Your task to perform on an android device: show emergency info Image 0: 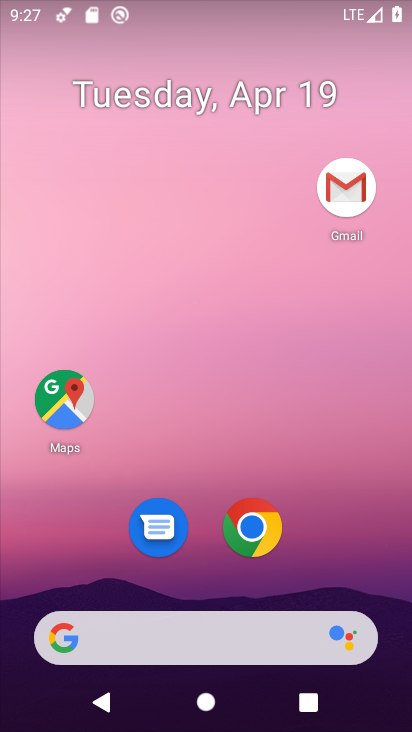
Step 0: drag from (364, 531) to (365, 114)
Your task to perform on an android device: show emergency info Image 1: 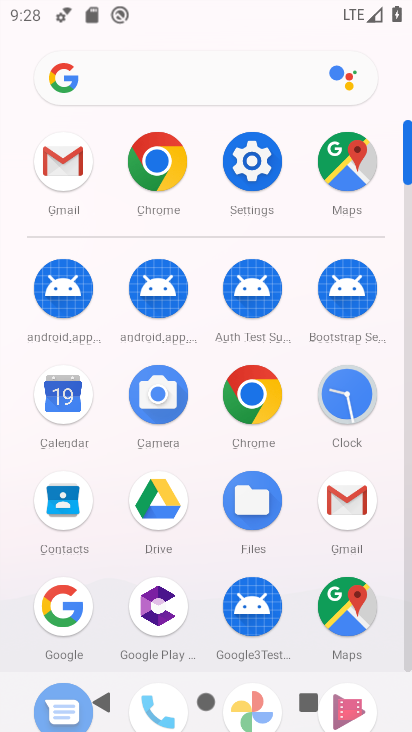
Step 1: click (248, 168)
Your task to perform on an android device: show emergency info Image 2: 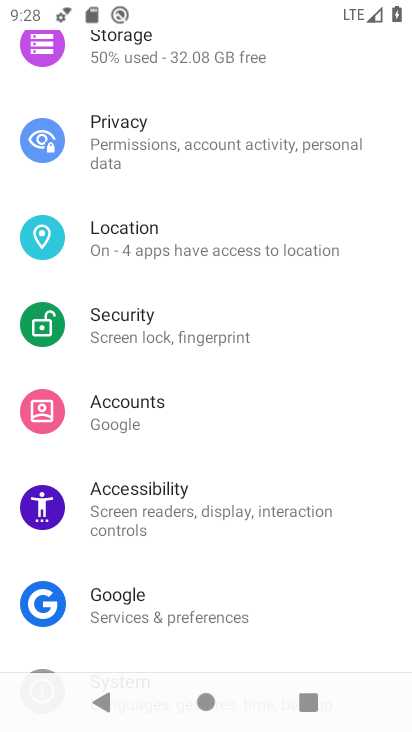
Step 2: drag from (326, 631) to (369, 208)
Your task to perform on an android device: show emergency info Image 3: 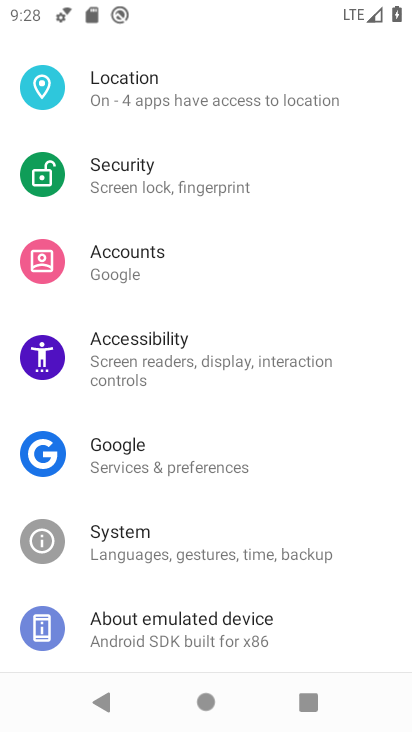
Step 3: click (248, 635)
Your task to perform on an android device: show emergency info Image 4: 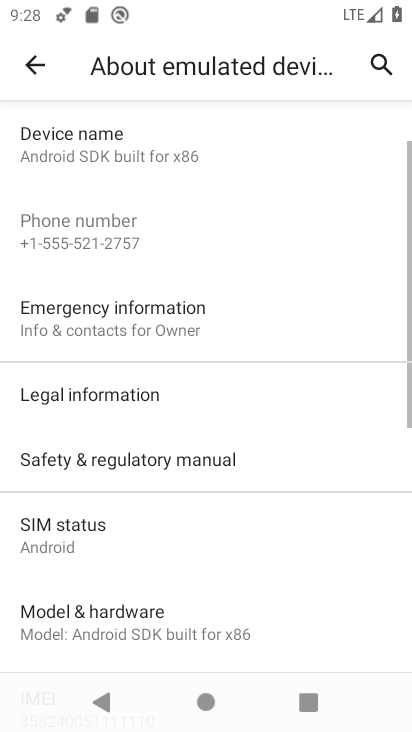
Step 4: click (210, 311)
Your task to perform on an android device: show emergency info Image 5: 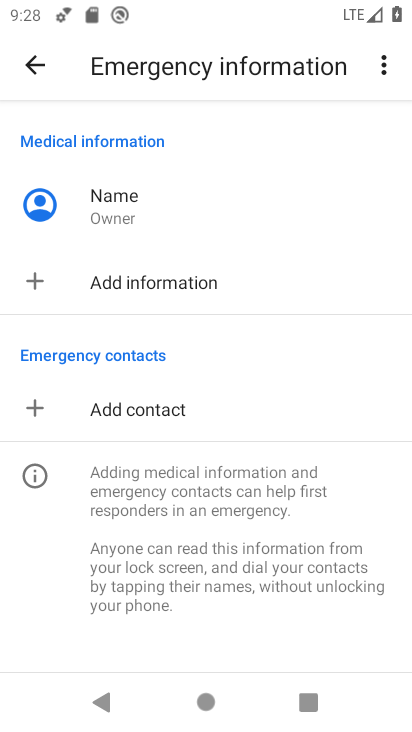
Step 5: task complete